Your task to perform on an android device: manage bookmarks in the chrome app Image 0: 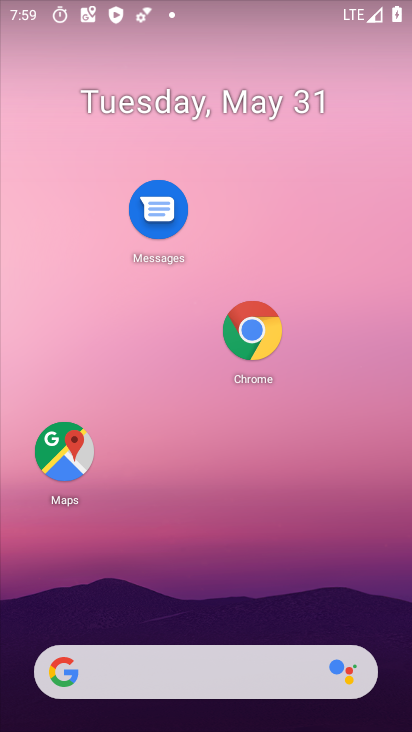
Step 0: click (252, 337)
Your task to perform on an android device: manage bookmarks in the chrome app Image 1: 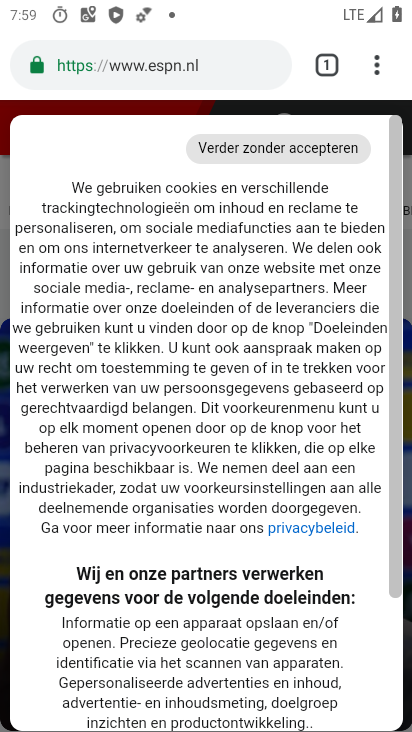
Step 1: click (380, 66)
Your task to perform on an android device: manage bookmarks in the chrome app Image 2: 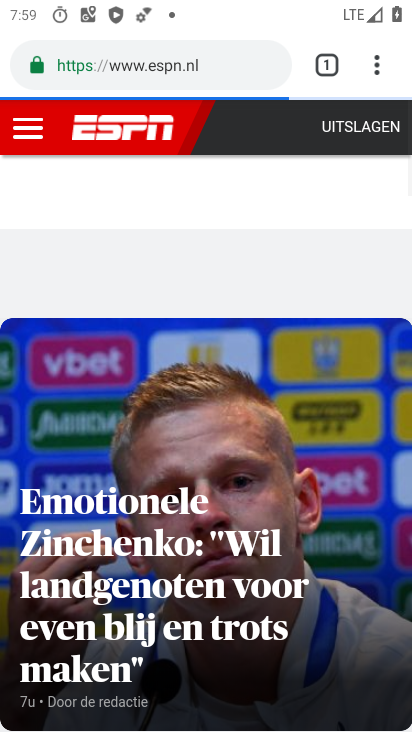
Step 2: click (375, 65)
Your task to perform on an android device: manage bookmarks in the chrome app Image 3: 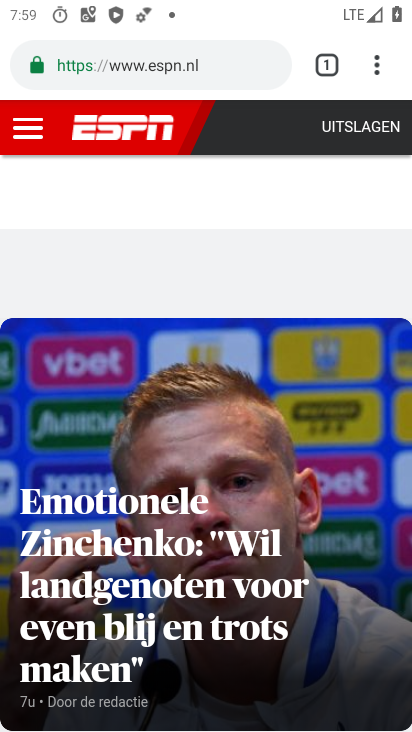
Step 3: click (375, 65)
Your task to perform on an android device: manage bookmarks in the chrome app Image 4: 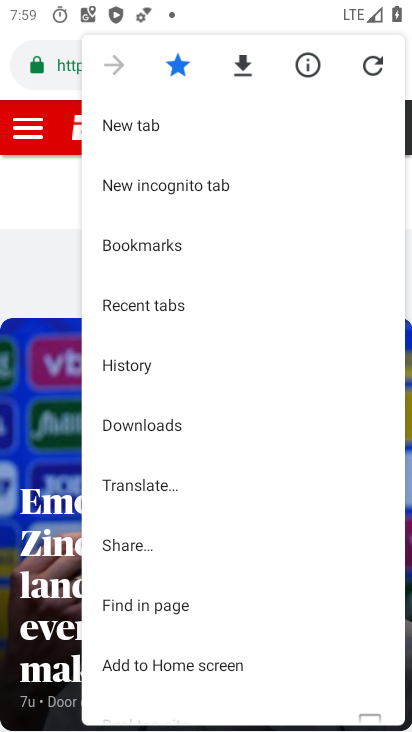
Step 4: click (148, 237)
Your task to perform on an android device: manage bookmarks in the chrome app Image 5: 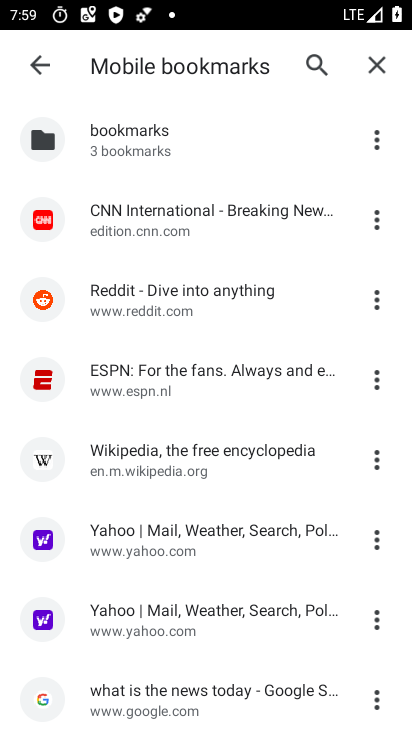
Step 5: click (374, 223)
Your task to perform on an android device: manage bookmarks in the chrome app Image 6: 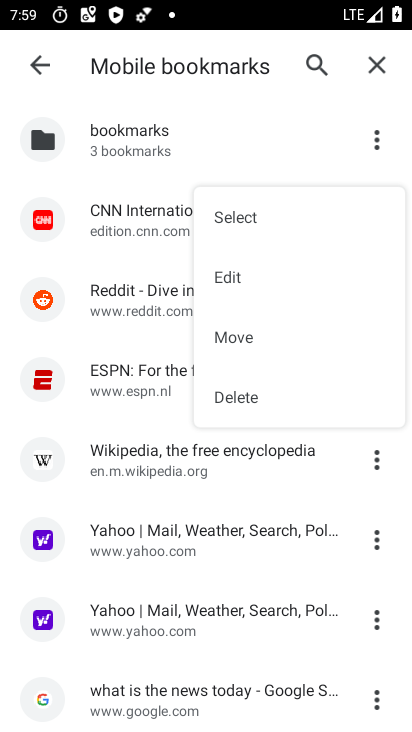
Step 6: click (243, 400)
Your task to perform on an android device: manage bookmarks in the chrome app Image 7: 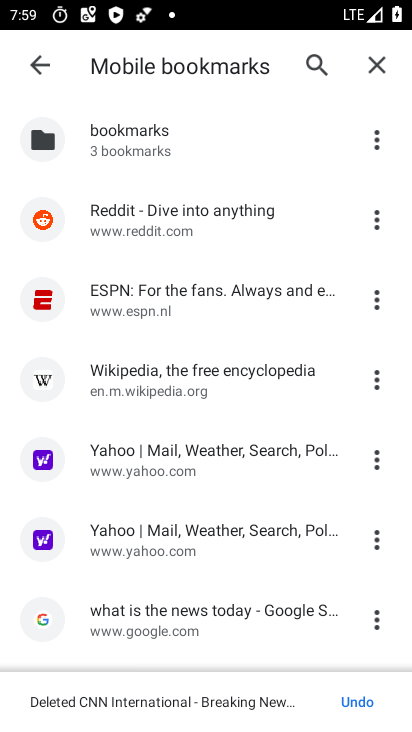
Step 7: task complete